Your task to perform on an android device: Go to internet settings Image 0: 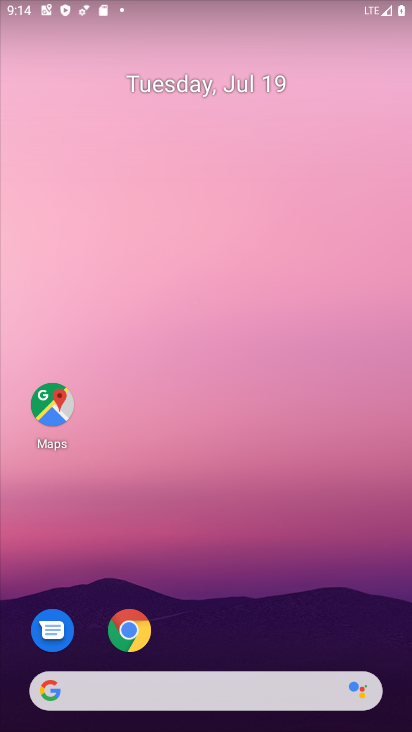
Step 0: drag from (196, 590) to (234, 86)
Your task to perform on an android device: Go to internet settings Image 1: 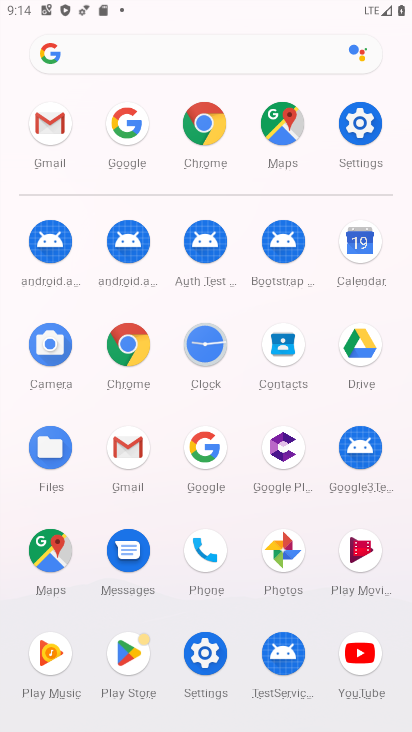
Step 1: click (355, 120)
Your task to perform on an android device: Go to internet settings Image 2: 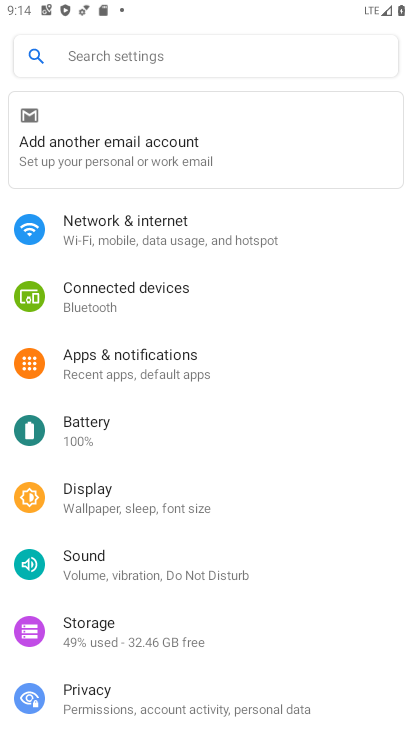
Step 2: click (213, 234)
Your task to perform on an android device: Go to internet settings Image 3: 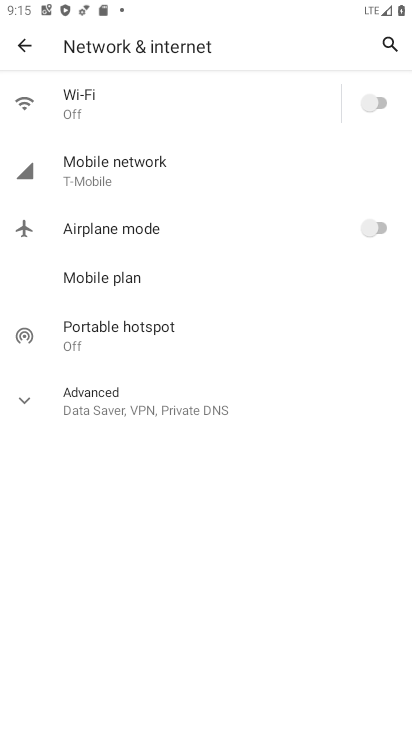
Step 3: click (114, 114)
Your task to perform on an android device: Go to internet settings Image 4: 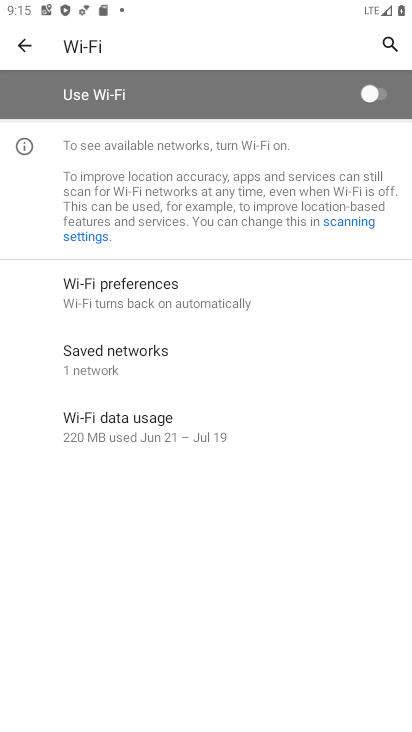
Step 4: click (367, 97)
Your task to perform on an android device: Go to internet settings Image 5: 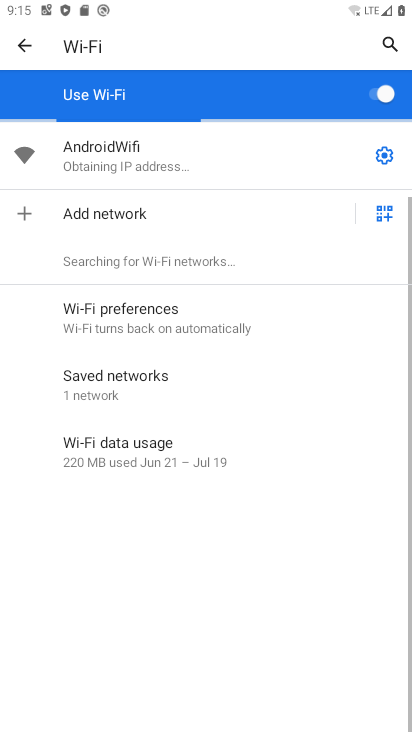
Step 5: click (190, 153)
Your task to perform on an android device: Go to internet settings Image 6: 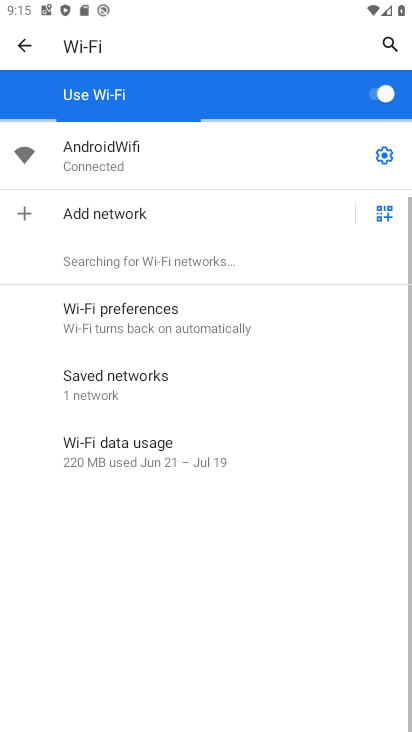
Step 6: click (192, 166)
Your task to perform on an android device: Go to internet settings Image 7: 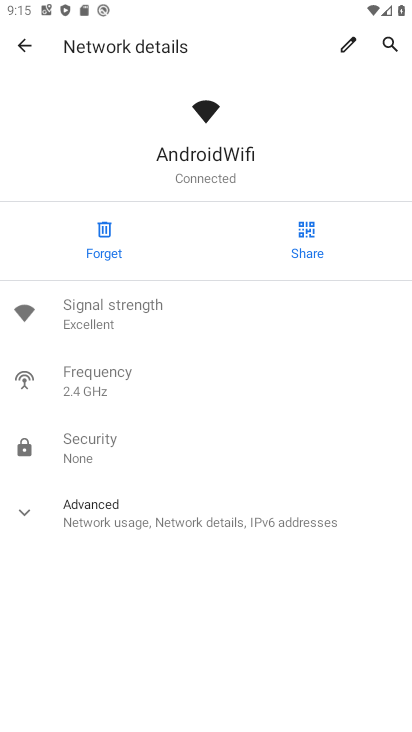
Step 7: task complete